Your task to perform on an android device: search for starred emails in the gmail app Image 0: 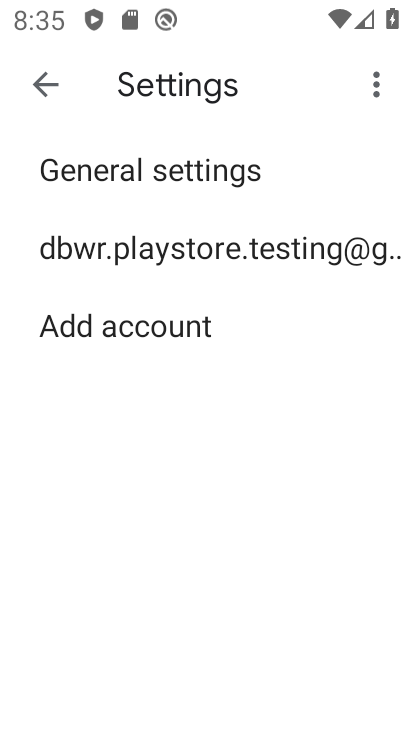
Step 0: click (79, 389)
Your task to perform on an android device: search for starred emails in the gmail app Image 1: 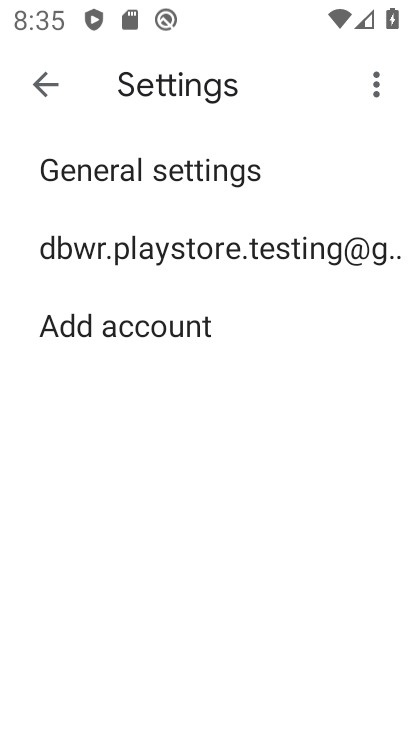
Step 1: press home button
Your task to perform on an android device: search for starred emails in the gmail app Image 2: 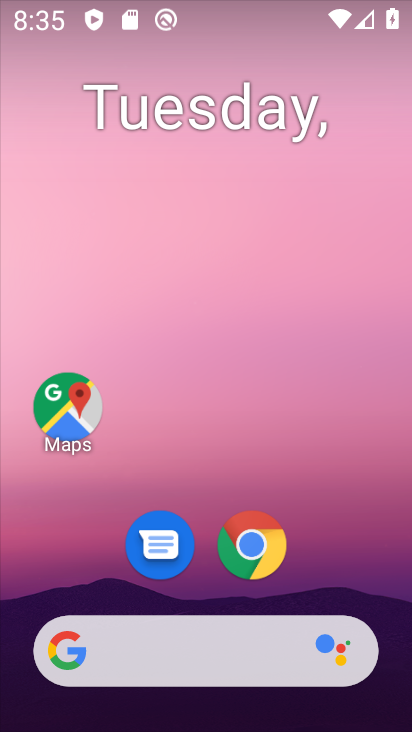
Step 2: drag from (373, 561) to (303, 221)
Your task to perform on an android device: search for starred emails in the gmail app Image 3: 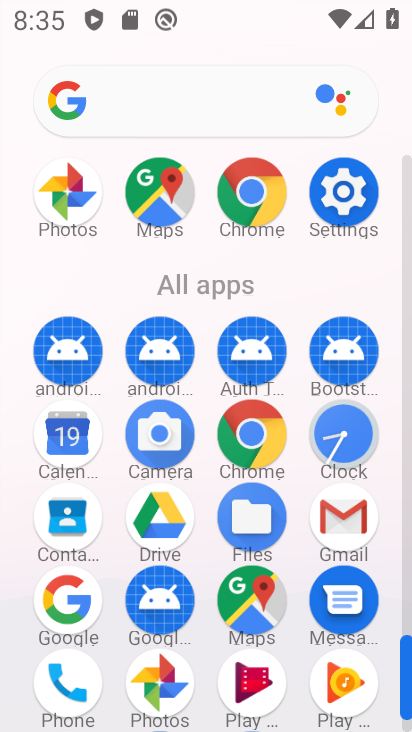
Step 3: click (356, 526)
Your task to perform on an android device: search for starred emails in the gmail app Image 4: 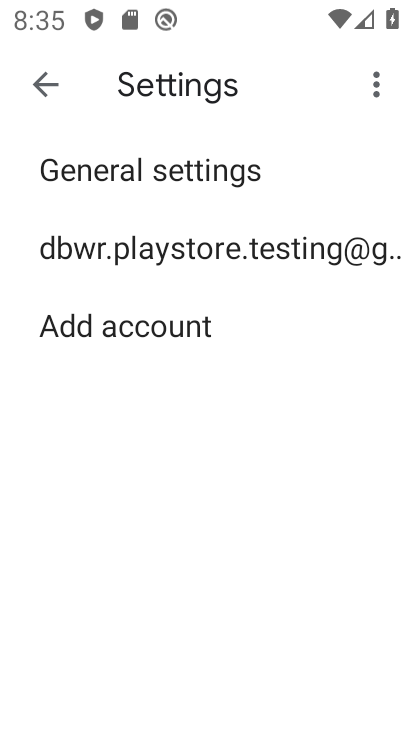
Step 4: click (310, 252)
Your task to perform on an android device: search for starred emails in the gmail app Image 5: 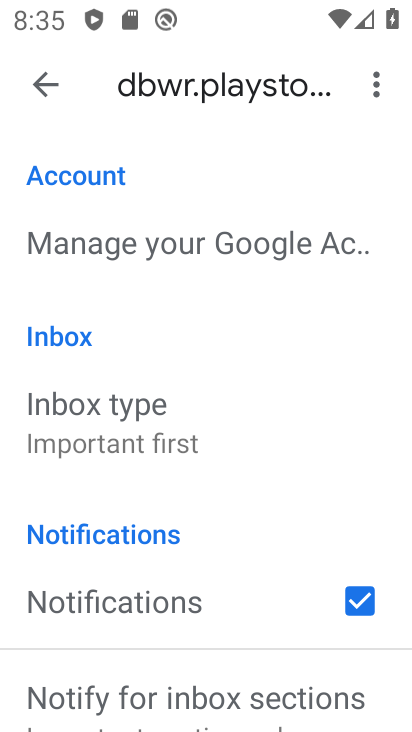
Step 5: click (47, 69)
Your task to perform on an android device: search for starred emails in the gmail app Image 6: 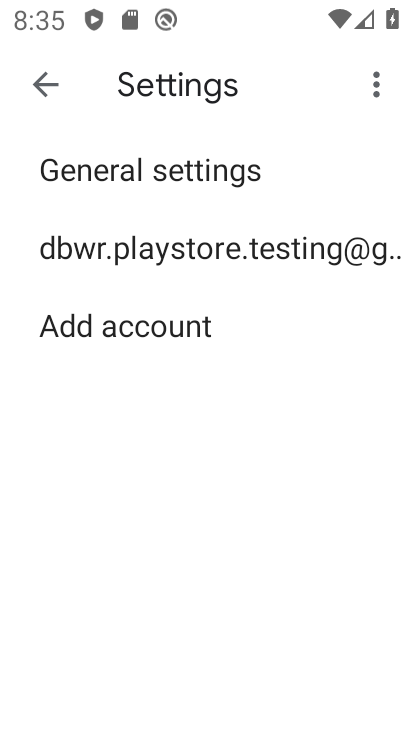
Step 6: click (44, 79)
Your task to perform on an android device: search for starred emails in the gmail app Image 7: 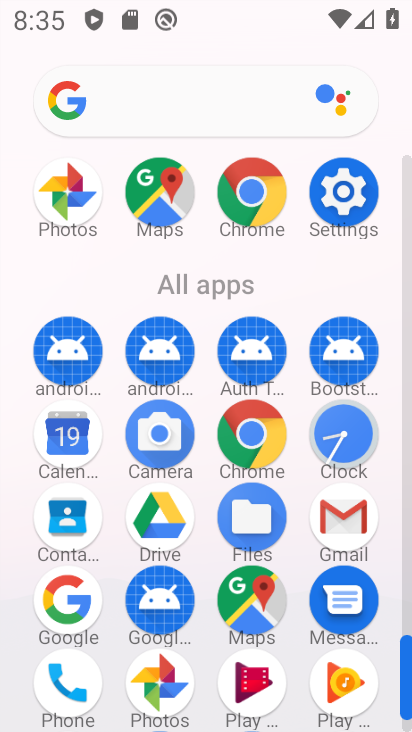
Step 7: click (343, 531)
Your task to perform on an android device: search for starred emails in the gmail app Image 8: 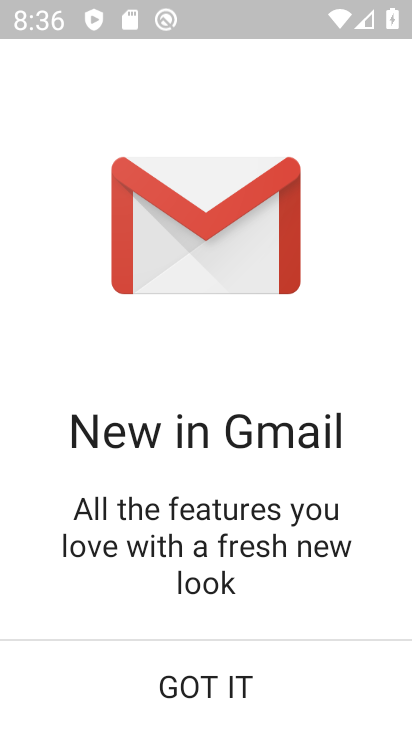
Step 8: click (227, 688)
Your task to perform on an android device: search for starred emails in the gmail app Image 9: 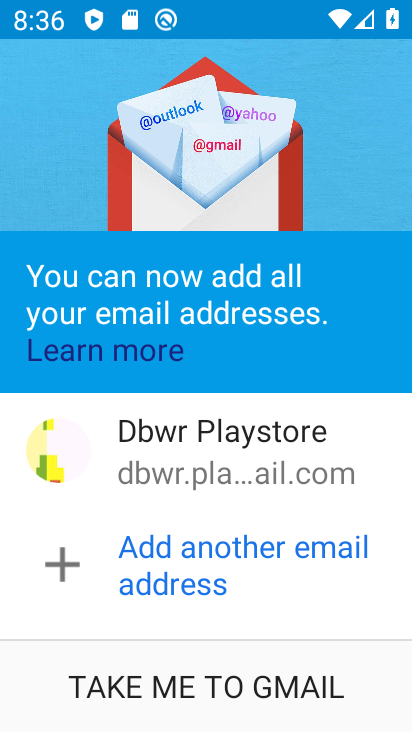
Step 9: click (222, 688)
Your task to perform on an android device: search for starred emails in the gmail app Image 10: 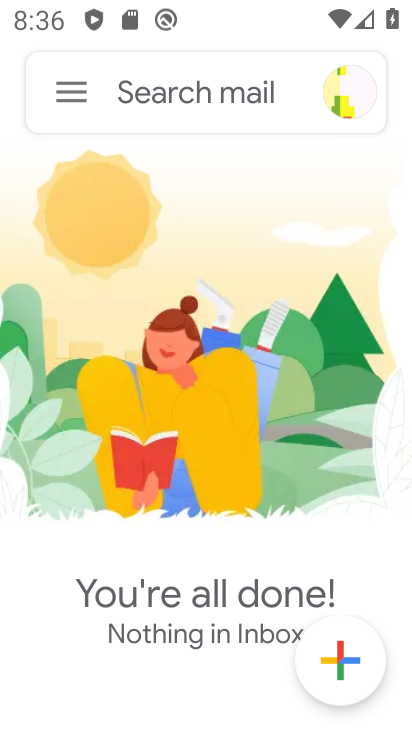
Step 10: click (73, 102)
Your task to perform on an android device: search for starred emails in the gmail app Image 11: 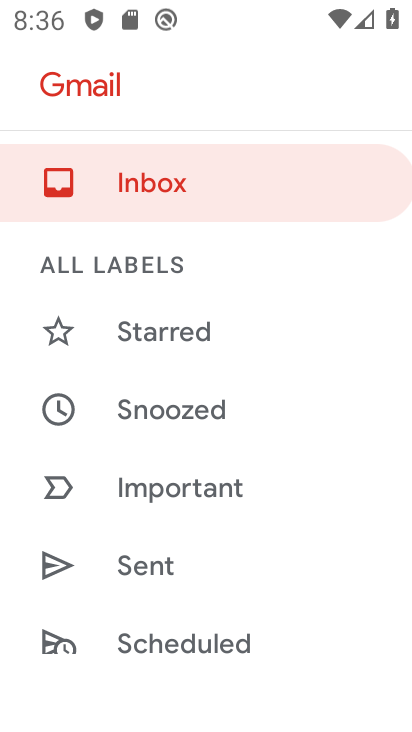
Step 11: click (157, 339)
Your task to perform on an android device: search for starred emails in the gmail app Image 12: 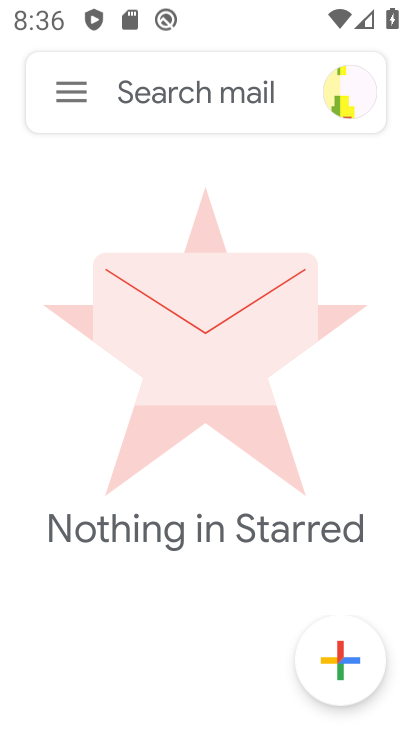
Step 12: task complete